Your task to perform on an android device: set the stopwatch Image 0: 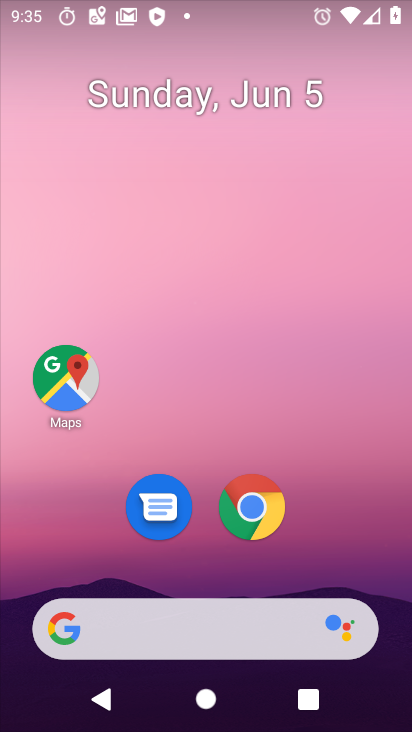
Step 0: drag from (261, 627) to (272, 161)
Your task to perform on an android device: set the stopwatch Image 1: 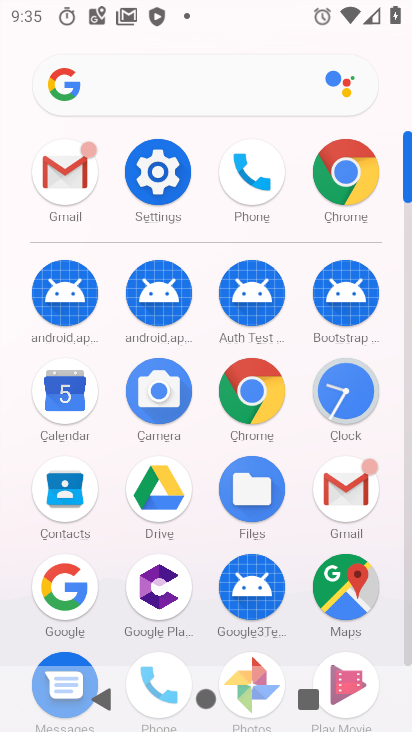
Step 1: click (347, 393)
Your task to perform on an android device: set the stopwatch Image 2: 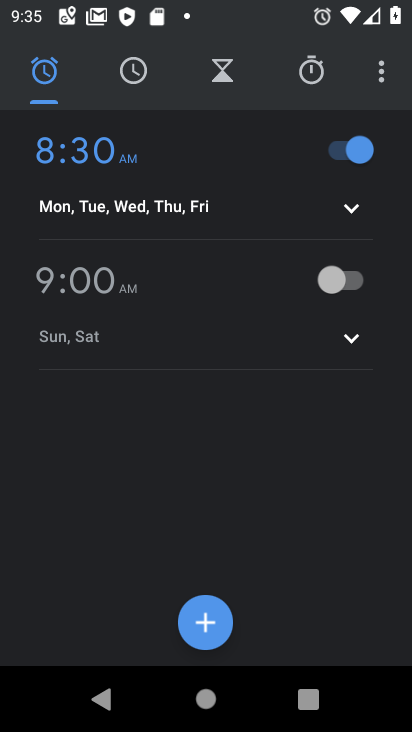
Step 2: click (307, 85)
Your task to perform on an android device: set the stopwatch Image 3: 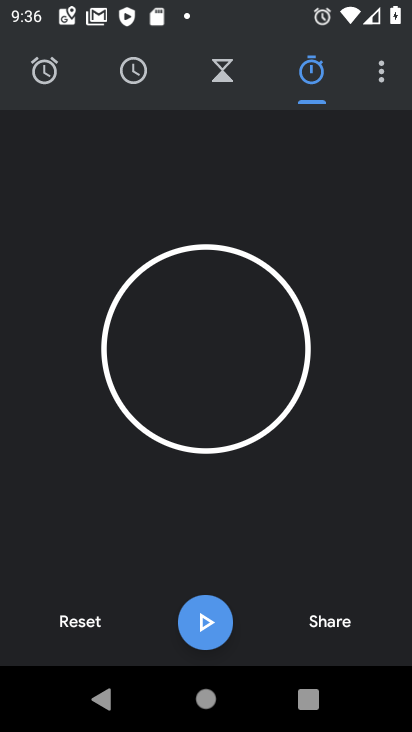
Step 3: click (193, 616)
Your task to perform on an android device: set the stopwatch Image 4: 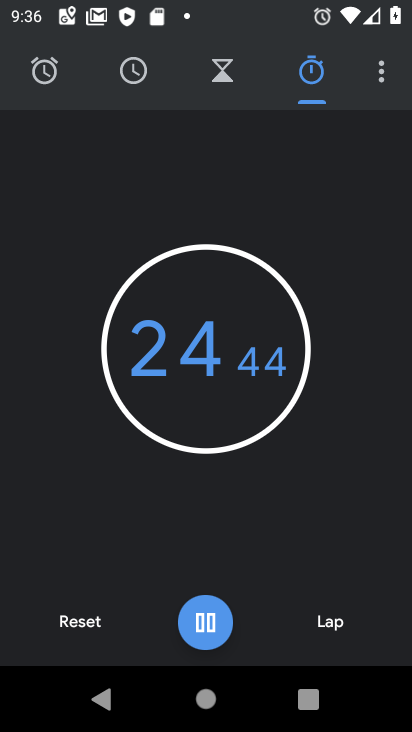
Step 4: task complete